Your task to perform on an android device: Go to privacy settings Image 0: 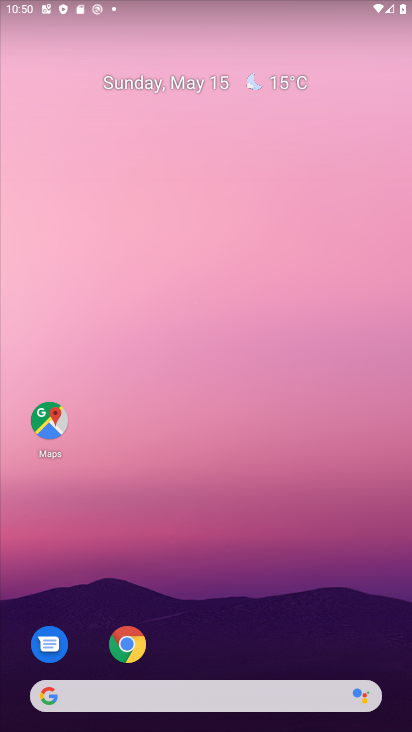
Step 0: drag from (178, 681) to (245, 385)
Your task to perform on an android device: Go to privacy settings Image 1: 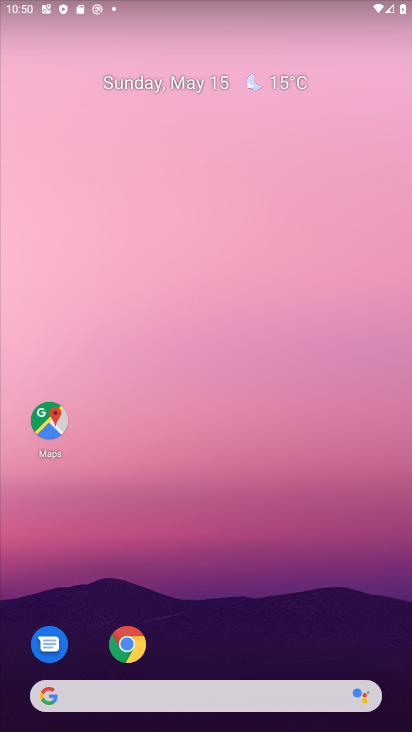
Step 1: drag from (174, 681) to (262, 253)
Your task to perform on an android device: Go to privacy settings Image 2: 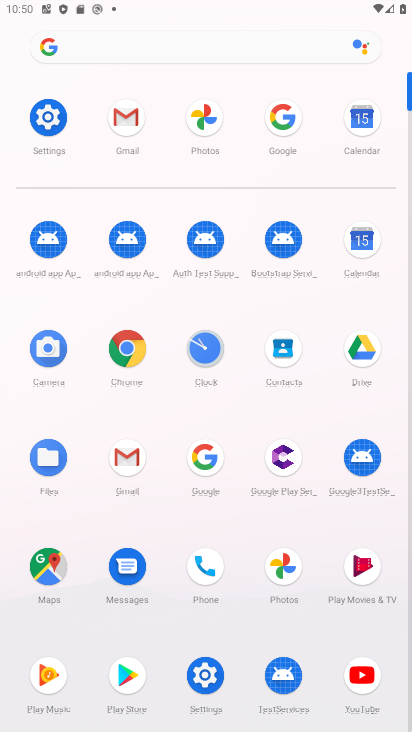
Step 2: click (205, 676)
Your task to perform on an android device: Go to privacy settings Image 3: 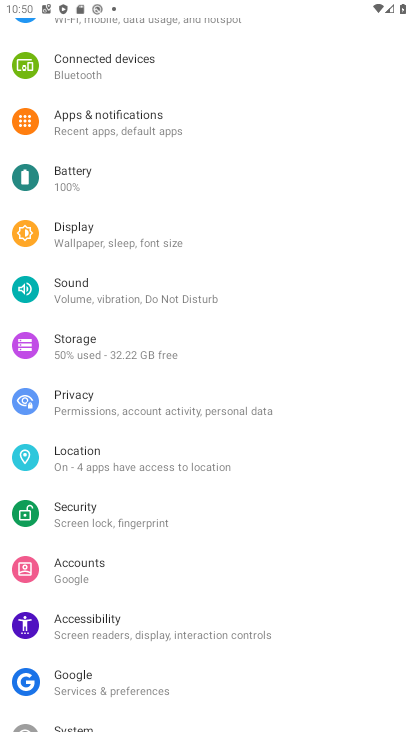
Step 3: drag from (107, 693) to (153, 398)
Your task to perform on an android device: Go to privacy settings Image 4: 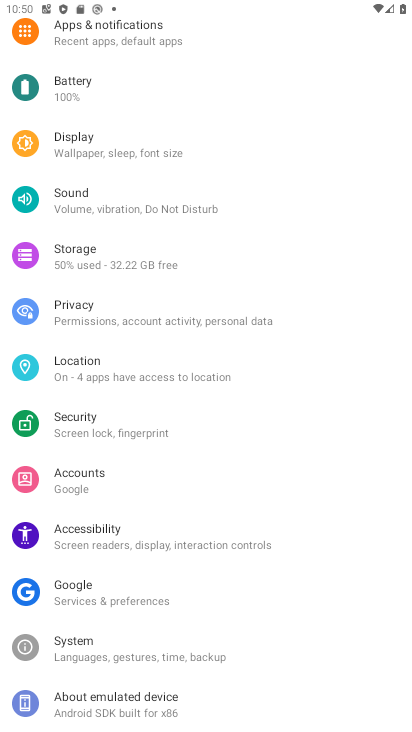
Step 4: click (127, 311)
Your task to perform on an android device: Go to privacy settings Image 5: 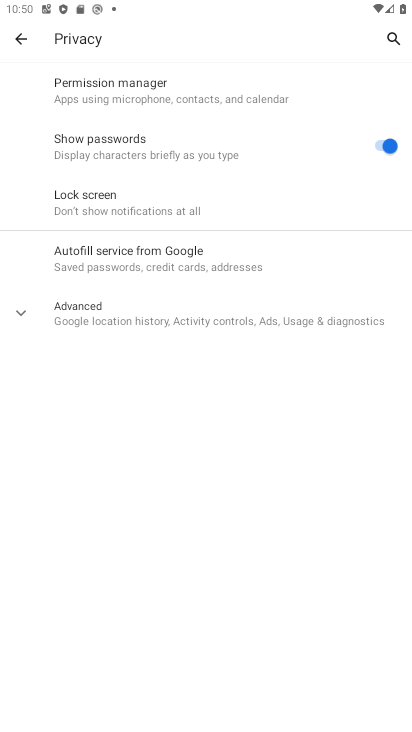
Step 5: click (25, 316)
Your task to perform on an android device: Go to privacy settings Image 6: 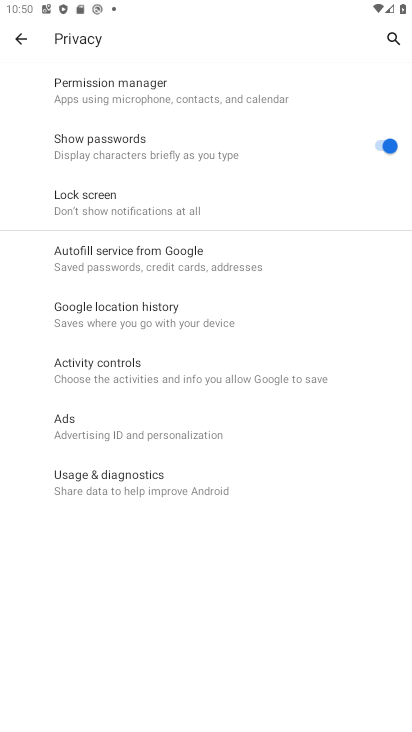
Step 6: task complete